Your task to perform on an android device: What's the weather? Image 0: 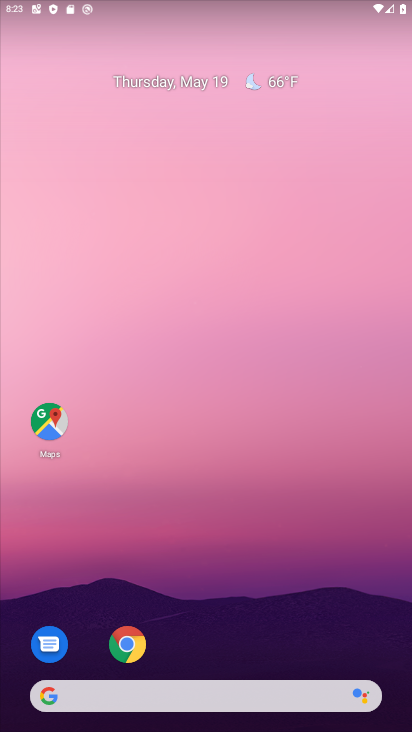
Step 0: drag from (325, 570) to (364, 130)
Your task to perform on an android device: What's the weather? Image 1: 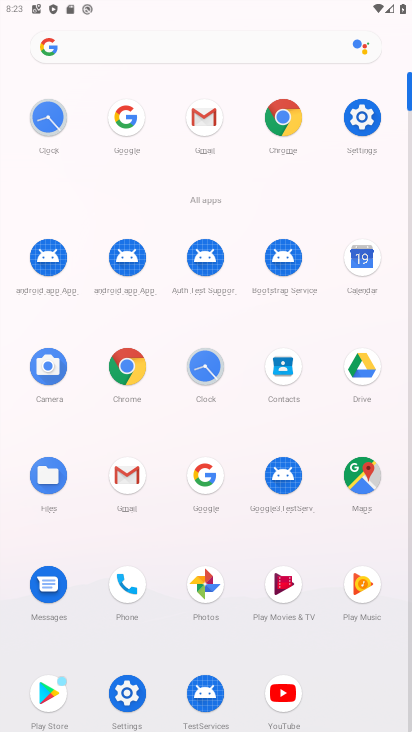
Step 1: click (135, 372)
Your task to perform on an android device: What's the weather? Image 2: 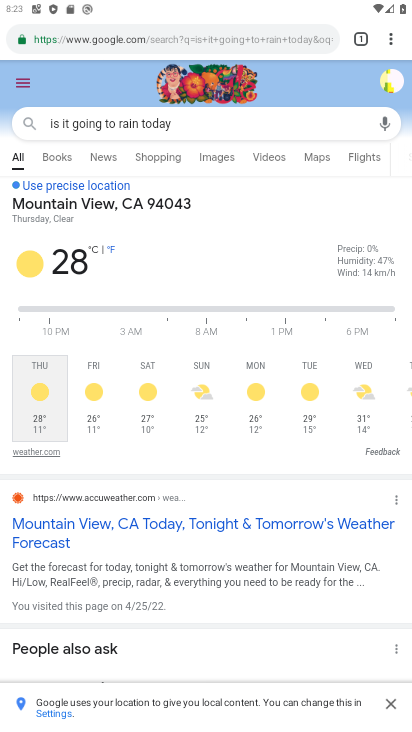
Step 2: click (182, 34)
Your task to perform on an android device: What's the weather? Image 3: 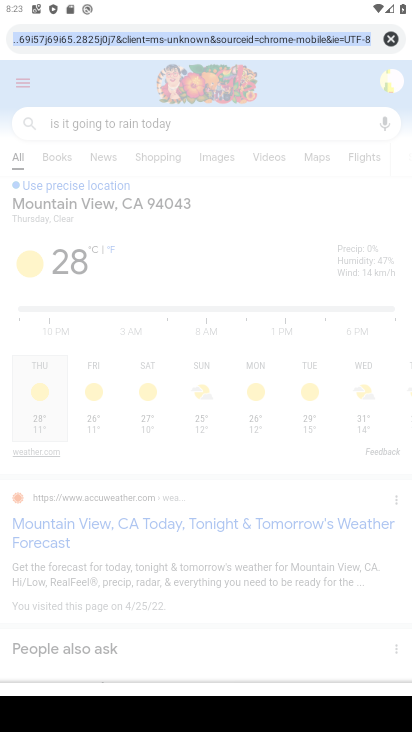
Step 3: click (396, 33)
Your task to perform on an android device: What's the weather? Image 4: 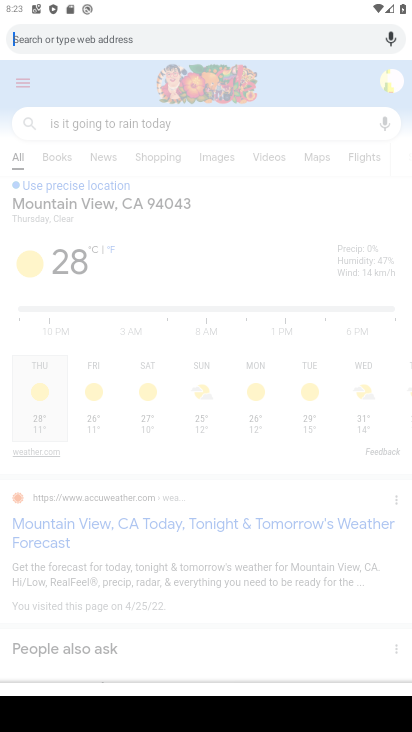
Step 4: type "what's the weather"
Your task to perform on an android device: What's the weather? Image 5: 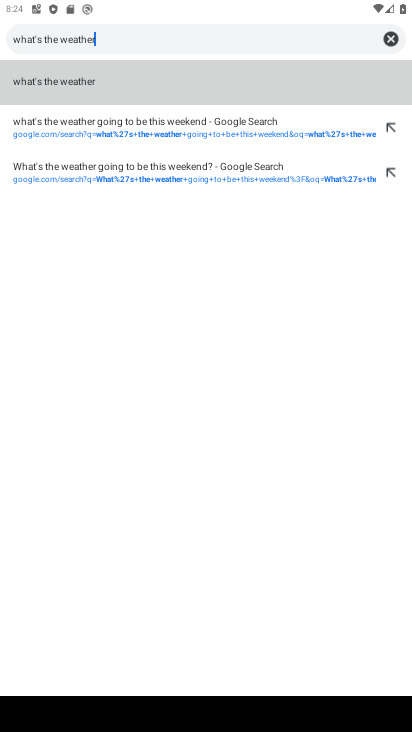
Step 5: click (133, 84)
Your task to perform on an android device: What's the weather? Image 6: 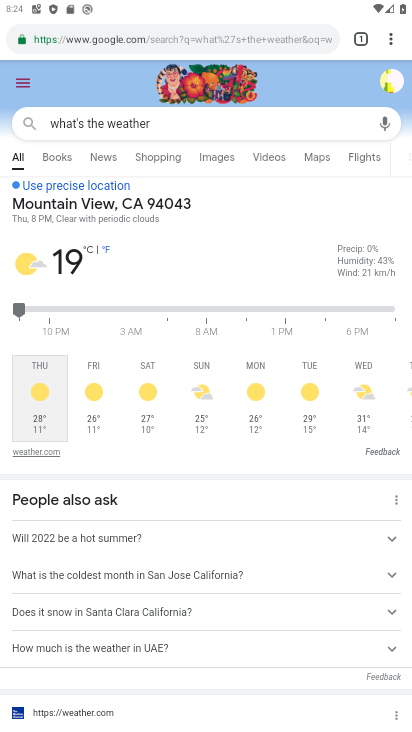
Step 6: task complete